Your task to perform on an android device: Check the weather Image 0: 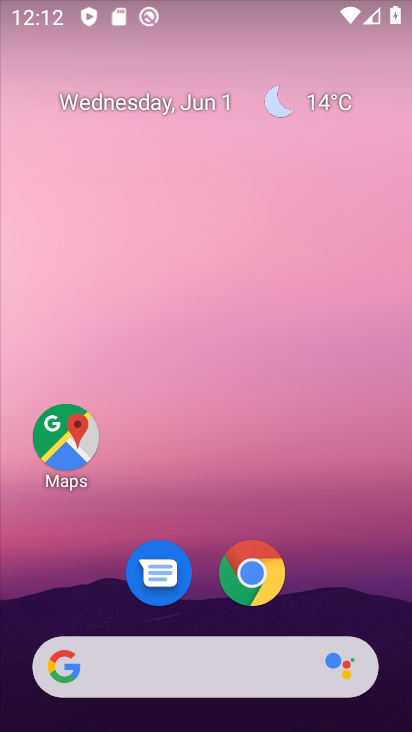
Step 0: click (333, 96)
Your task to perform on an android device: Check the weather Image 1: 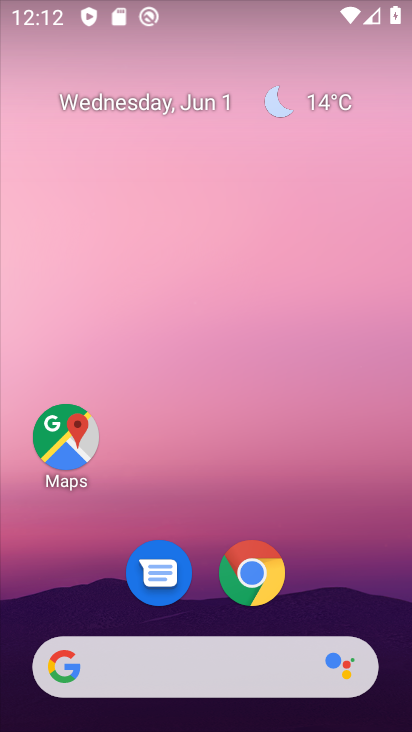
Step 1: click (323, 104)
Your task to perform on an android device: Check the weather Image 2: 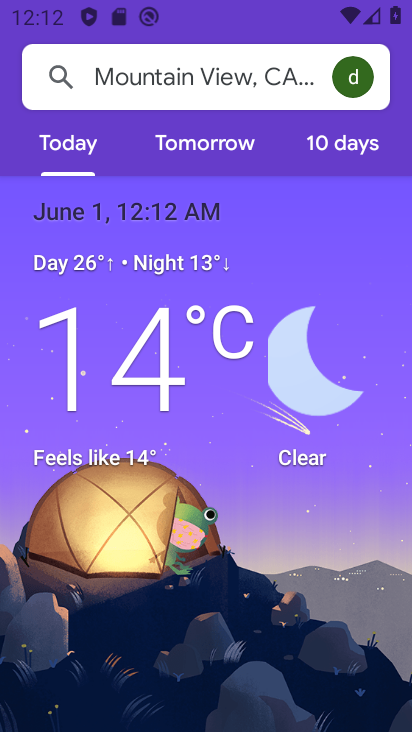
Step 2: task complete